Your task to perform on an android device: manage bookmarks in the chrome app Image 0: 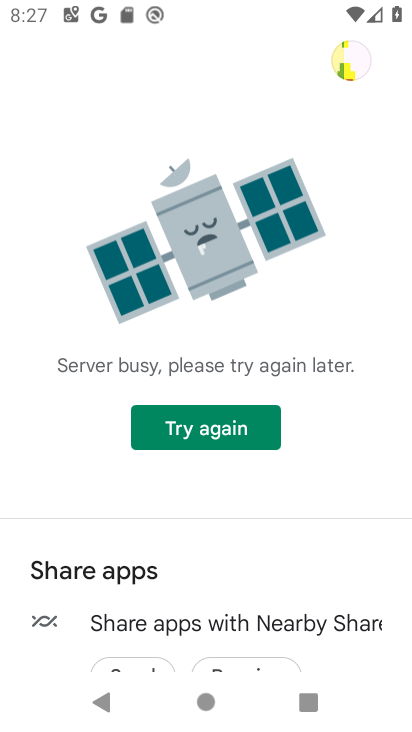
Step 0: press home button
Your task to perform on an android device: manage bookmarks in the chrome app Image 1: 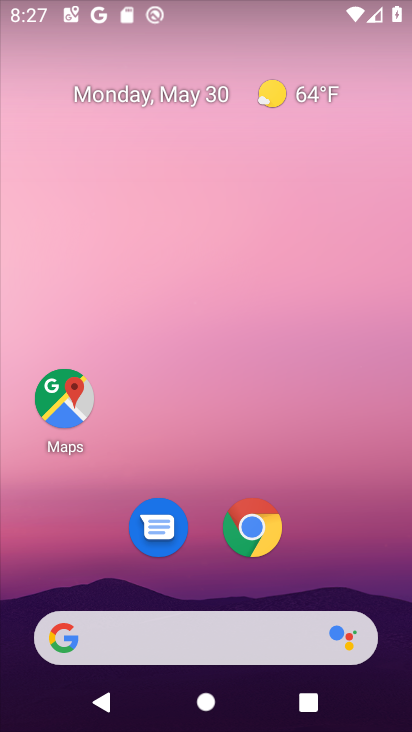
Step 1: click (250, 525)
Your task to perform on an android device: manage bookmarks in the chrome app Image 2: 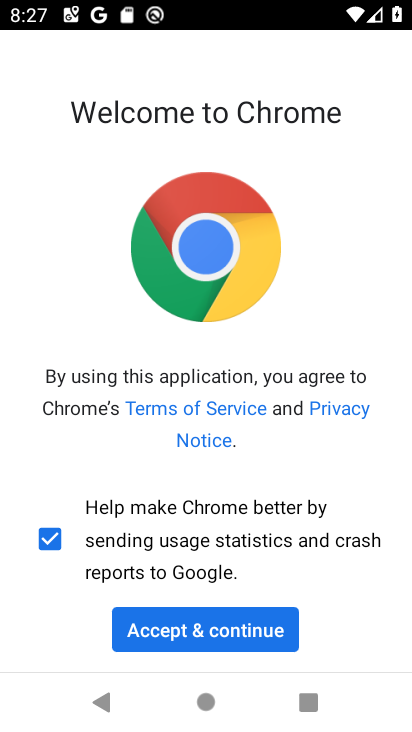
Step 2: click (194, 626)
Your task to perform on an android device: manage bookmarks in the chrome app Image 3: 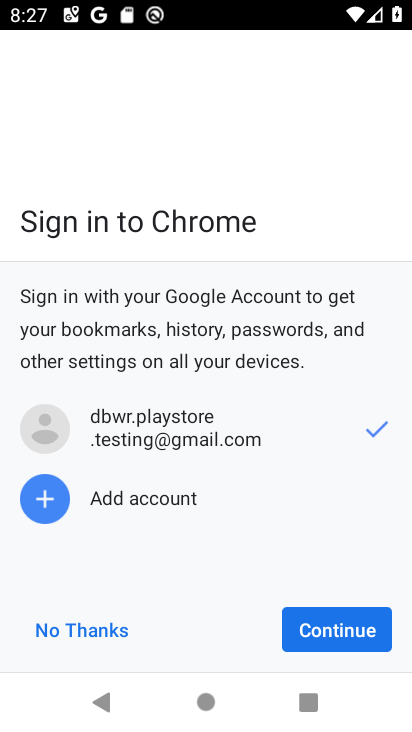
Step 3: click (326, 618)
Your task to perform on an android device: manage bookmarks in the chrome app Image 4: 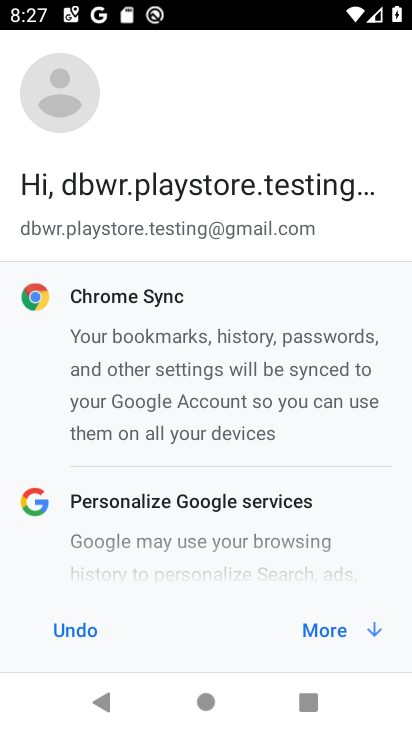
Step 4: click (327, 622)
Your task to perform on an android device: manage bookmarks in the chrome app Image 5: 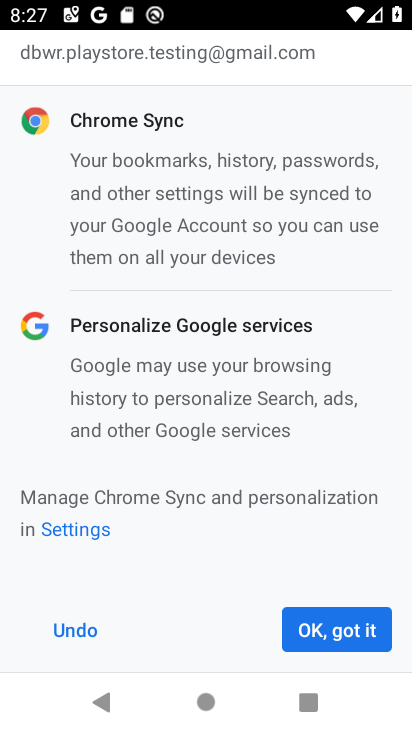
Step 5: click (329, 621)
Your task to perform on an android device: manage bookmarks in the chrome app Image 6: 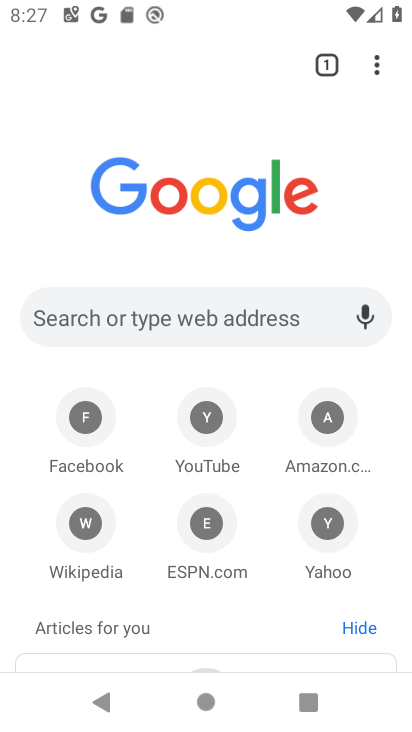
Step 6: click (375, 69)
Your task to perform on an android device: manage bookmarks in the chrome app Image 7: 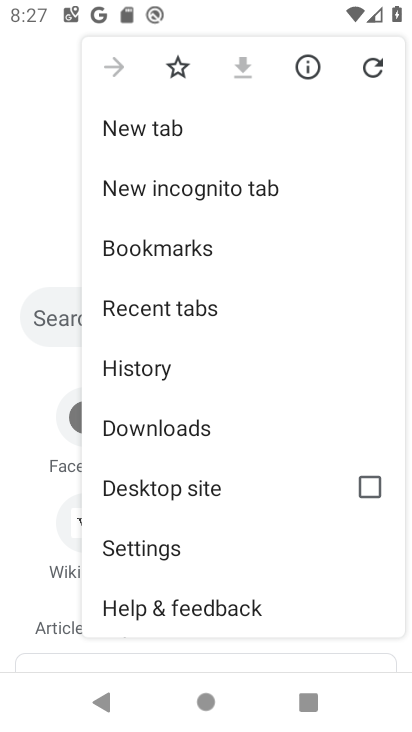
Step 7: click (178, 244)
Your task to perform on an android device: manage bookmarks in the chrome app Image 8: 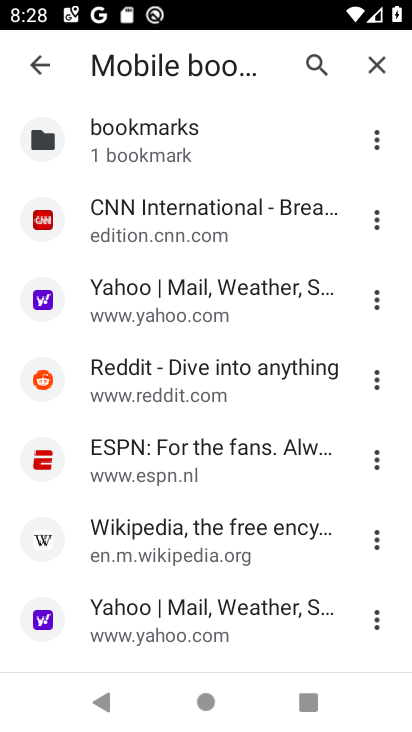
Step 8: click (182, 220)
Your task to perform on an android device: manage bookmarks in the chrome app Image 9: 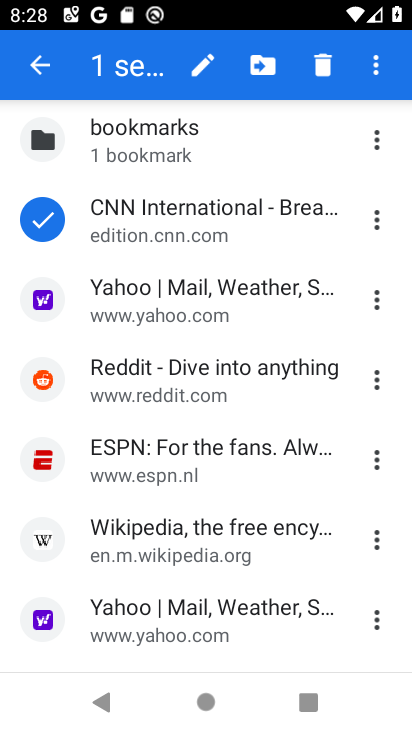
Step 9: click (255, 54)
Your task to perform on an android device: manage bookmarks in the chrome app Image 10: 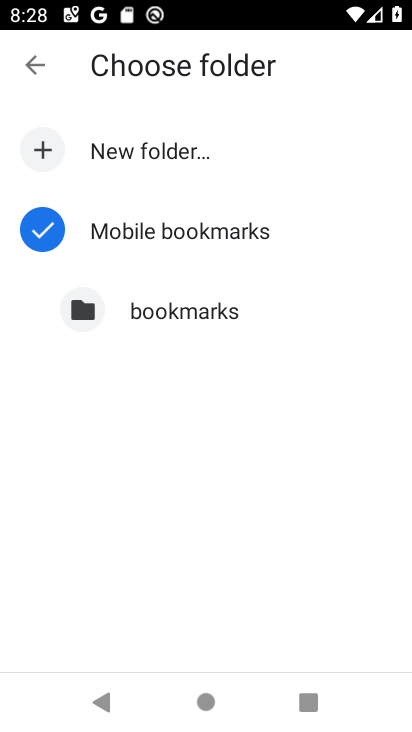
Step 10: click (100, 311)
Your task to perform on an android device: manage bookmarks in the chrome app Image 11: 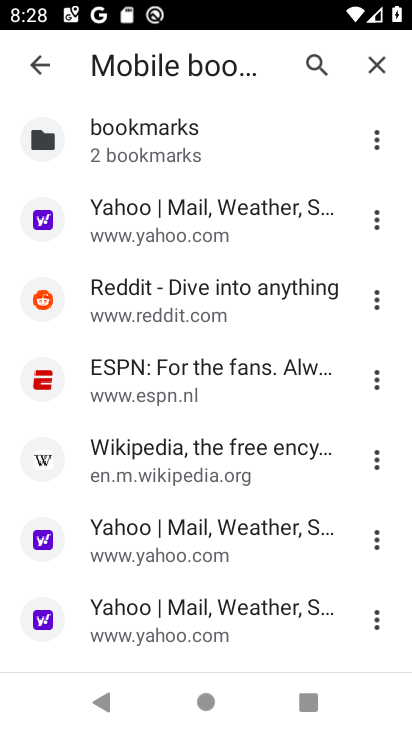
Step 11: task complete